Your task to perform on an android device: turn pop-ups on in chrome Image 0: 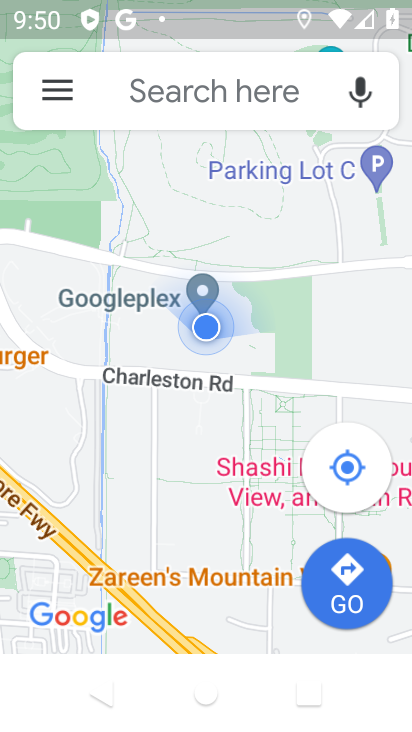
Step 0: press home button
Your task to perform on an android device: turn pop-ups on in chrome Image 1: 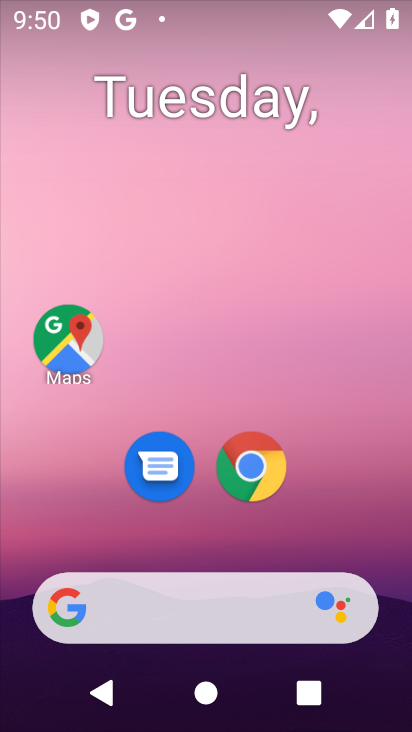
Step 1: click (246, 457)
Your task to perform on an android device: turn pop-ups on in chrome Image 2: 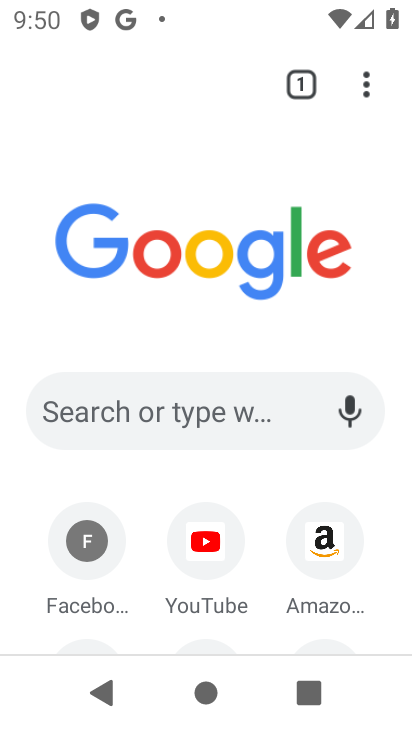
Step 2: click (361, 75)
Your task to perform on an android device: turn pop-ups on in chrome Image 3: 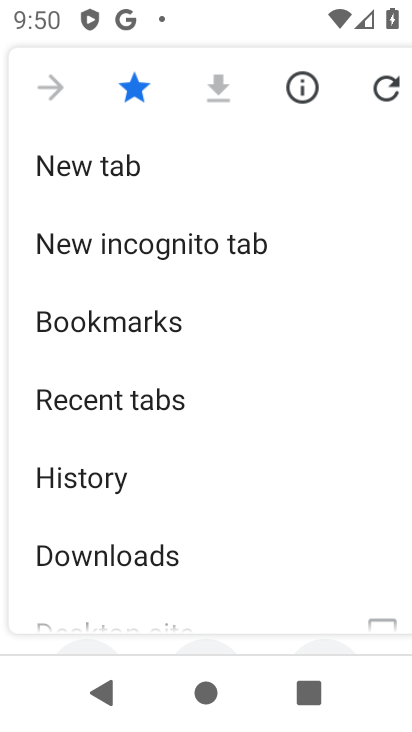
Step 3: drag from (188, 493) to (281, 86)
Your task to perform on an android device: turn pop-ups on in chrome Image 4: 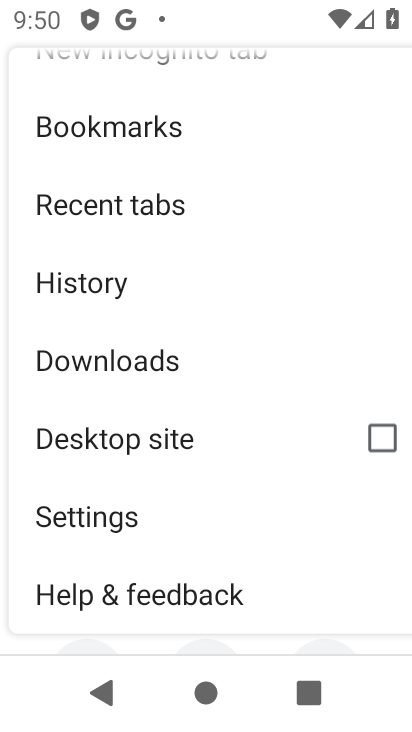
Step 4: click (97, 524)
Your task to perform on an android device: turn pop-ups on in chrome Image 5: 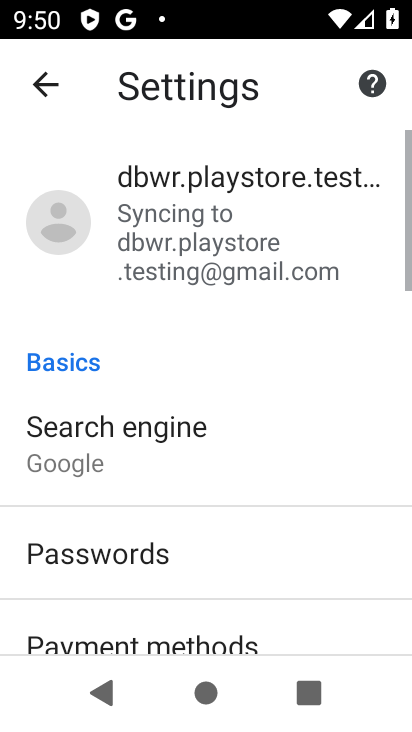
Step 5: drag from (249, 539) to (291, 188)
Your task to perform on an android device: turn pop-ups on in chrome Image 6: 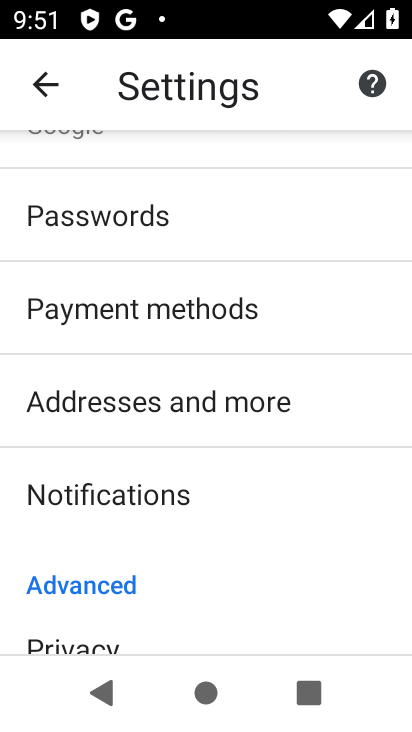
Step 6: drag from (243, 531) to (339, 229)
Your task to perform on an android device: turn pop-ups on in chrome Image 7: 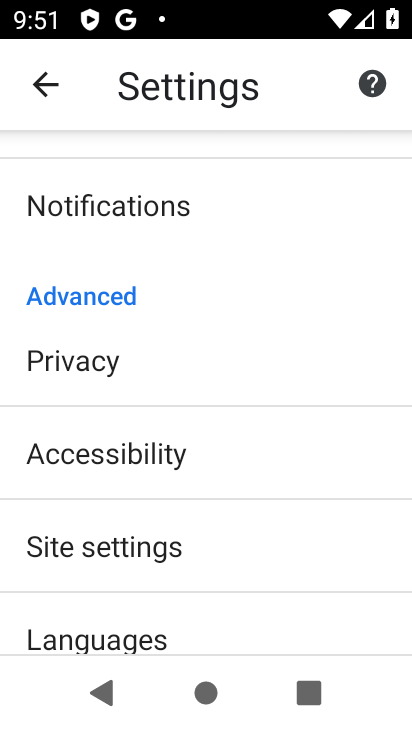
Step 7: click (152, 550)
Your task to perform on an android device: turn pop-ups on in chrome Image 8: 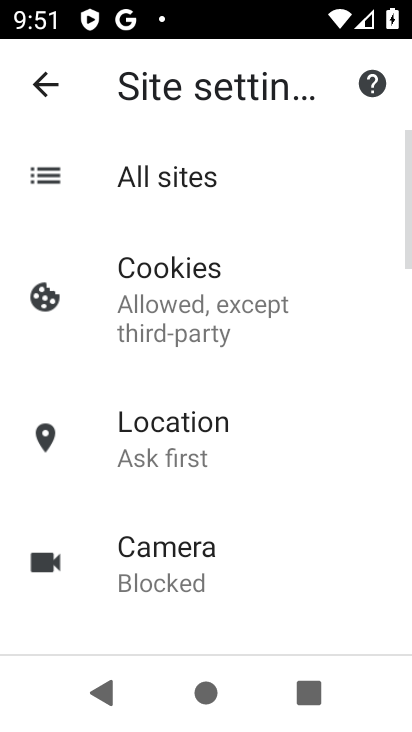
Step 8: drag from (257, 552) to (297, 248)
Your task to perform on an android device: turn pop-ups on in chrome Image 9: 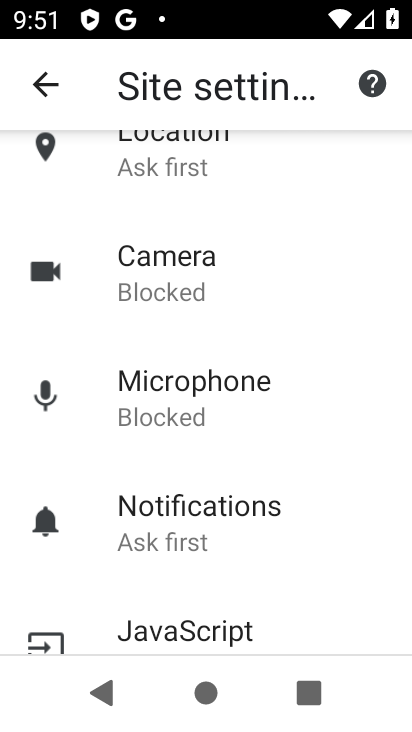
Step 9: drag from (270, 555) to (314, 215)
Your task to perform on an android device: turn pop-ups on in chrome Image 10: 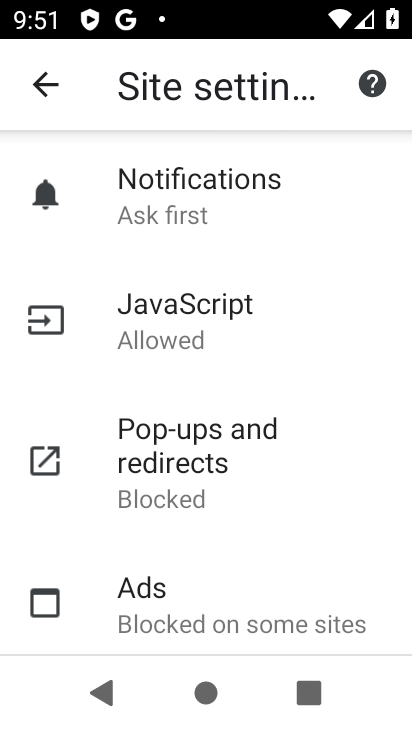
Step 10: click (223, 436)
Your task to perform on an android device: turn pop-ups on in chrome Image 11: 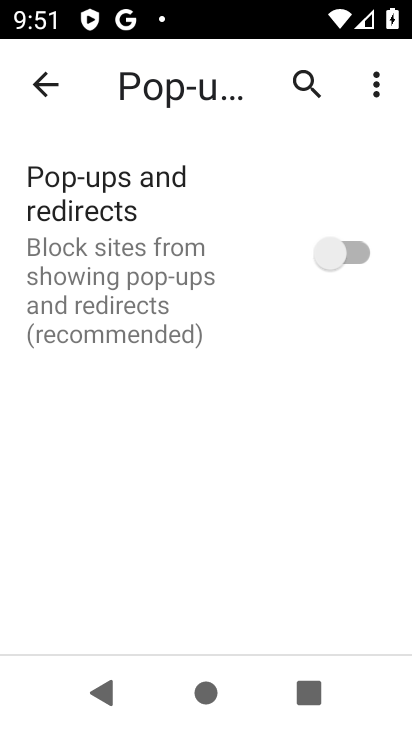
Step 11: click (336, 259)
Your task to perform on an android device: turn pop-ups on in chrome Image 12: 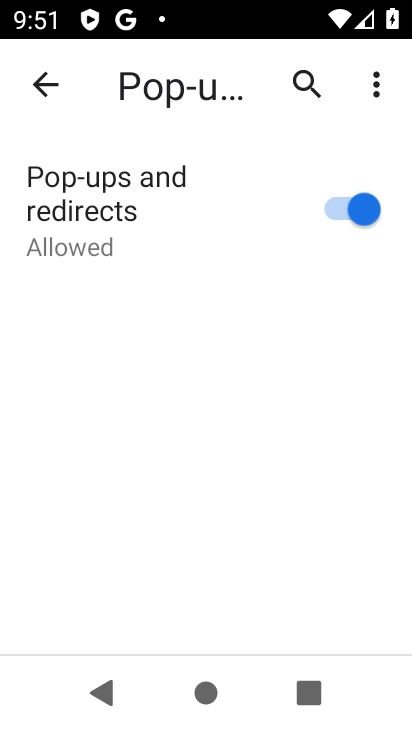
Step 12: task complete